Your task to perform on an android device: delete the emails in spam in the gmail app Image 0: 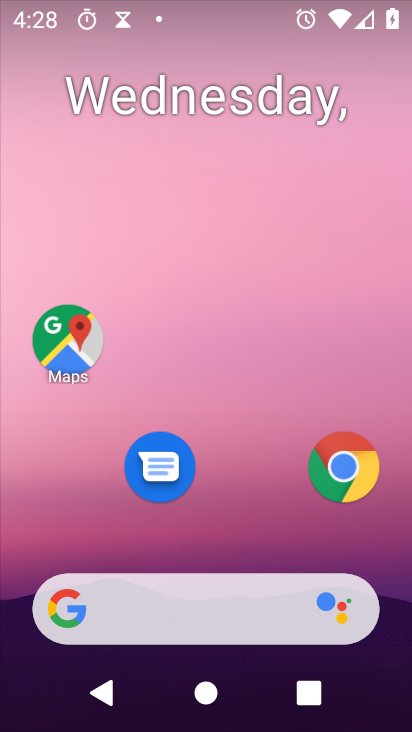
Step 0: drag from (260, 486) to (203, 58)
Your task to perform on an android device: delete the emails in spam in the gmail app Image 1: 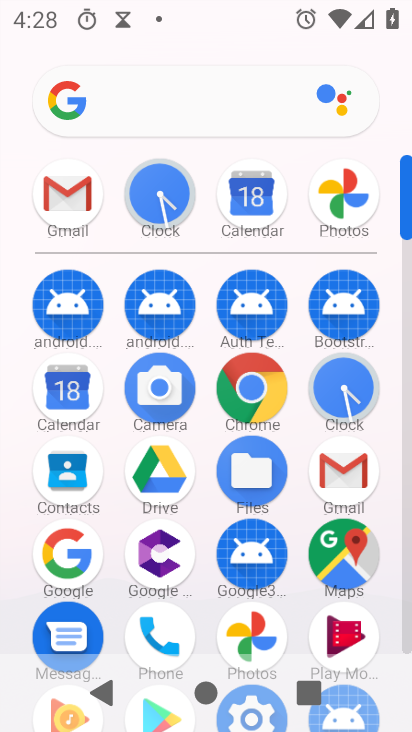
Step 1: click (86, 209)
Your task to perform on an android device: delete the emails in spam in the gmail app Image 2: 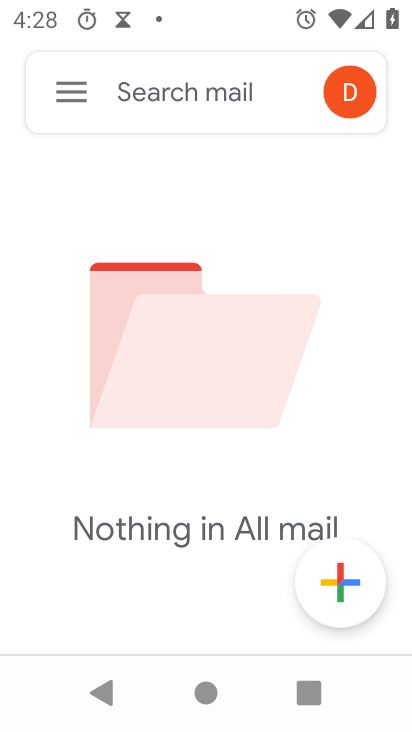
Step 2: click (76, 79)
Your task to perform on an android device: delete the emails in spam in the gmail app Image 3: 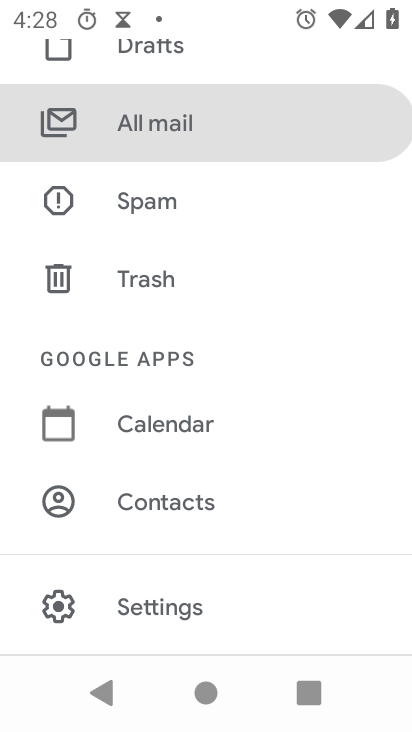
Step 3: click (158, 180)
Your task to perform on an android device: delete the emails in spam in the gmail app Image 4: 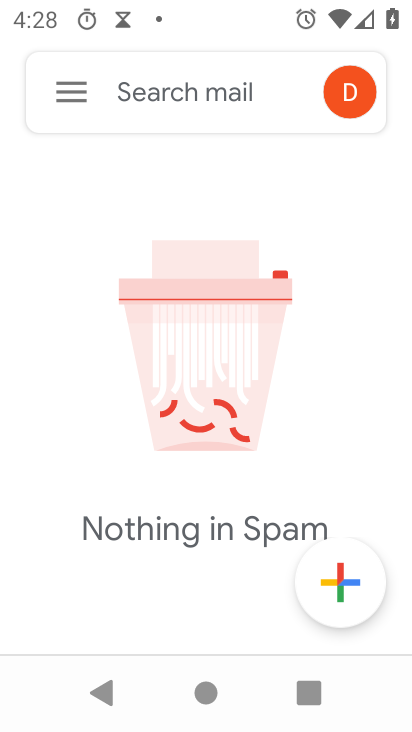
Step 4: task complete